Your task to perform on an android device: When is my next appointment? Image 0: 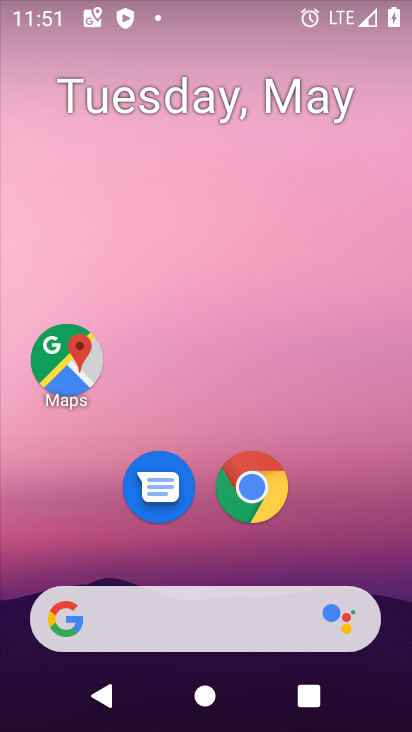
Step 0: drag from (207, 515) to (220, 133)
Your task to perform on an android device: When is my next appointment? Image 1: 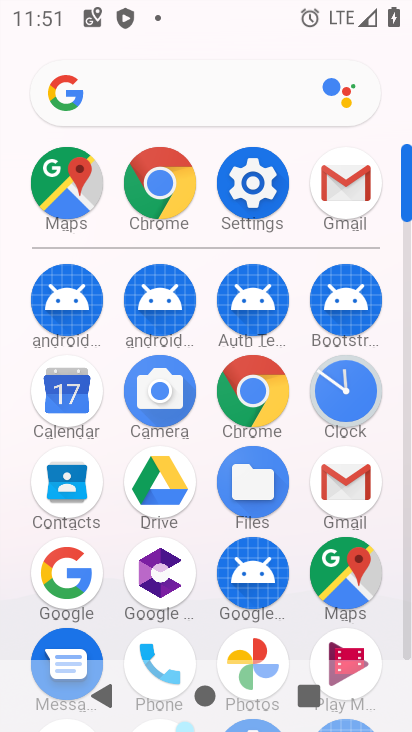
Step 1: drag from (209, 616) to (233, 296)
Your task to perform on an android device: When is my next appointment? Image 2: 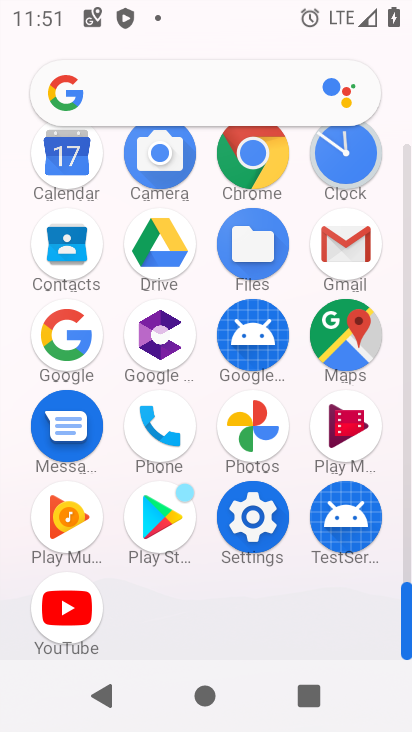
Step 2: click (180, 114)
Your task to perform on an android device: When is my next appointment? Image 3: 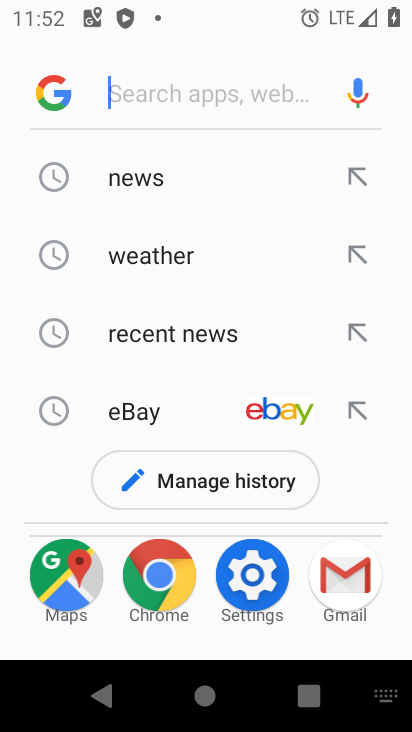
Step 3: press back button
Your task to perform on an android device: When is my next appointment? Image 4: 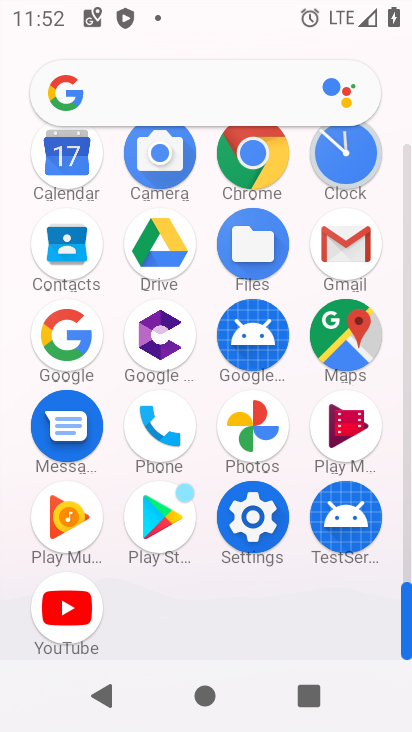
Step 4: click (64, 158)
Your task to perform on an android device: When is my next appointment? Image 5: 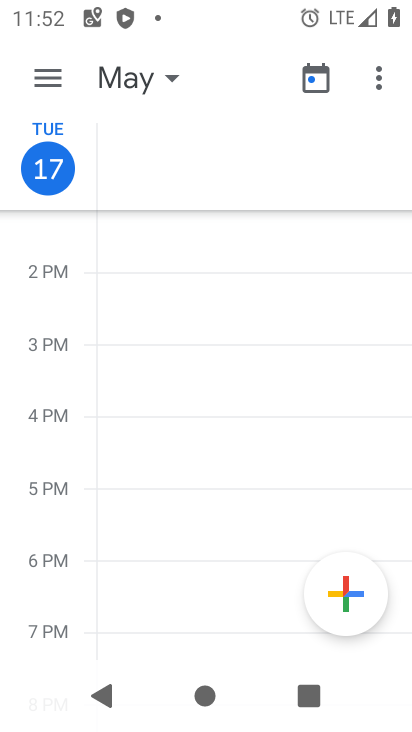
Step 5: click (128, 98)
Your task to perform on an android device: When is my next appointment? Image 6: 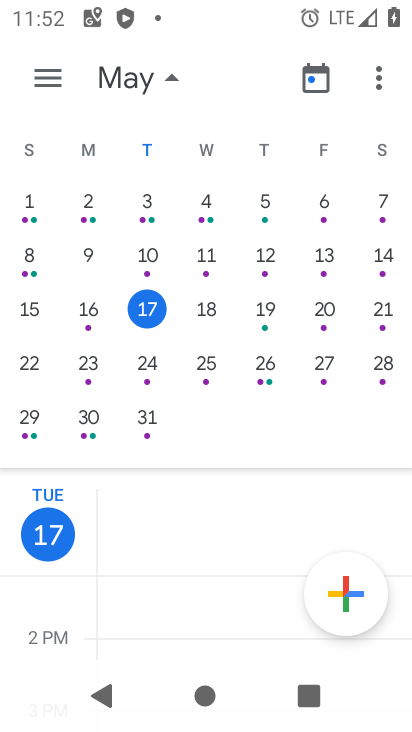
Step 6: click (146, 303)
Your task to perform on an android device: When is my next appointment? Image 7: 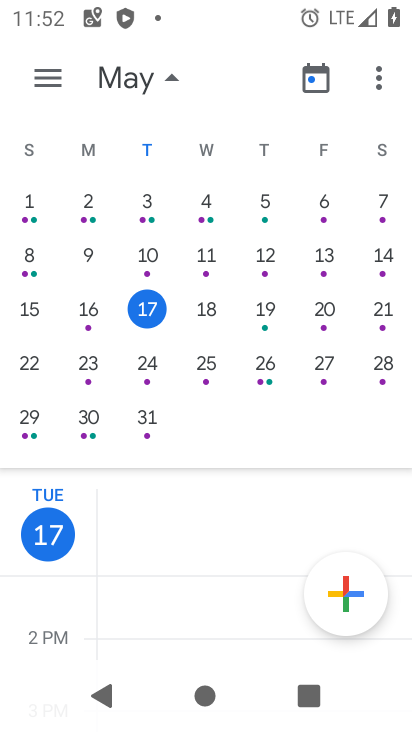
Step 7: drag from (217, 518) to (310, 74)
Your task to perform on an android device: When is my next appointment? Image 8: 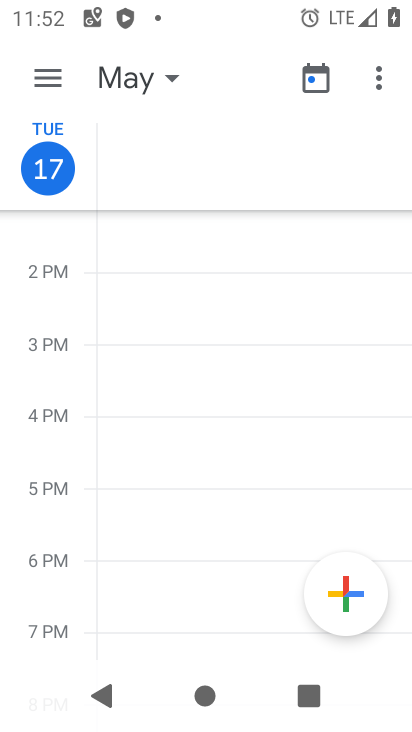
Step 8: drag from (283, 472) to (361, 92)
Your task to perform on an android device: When is my next appointment? Image 9: 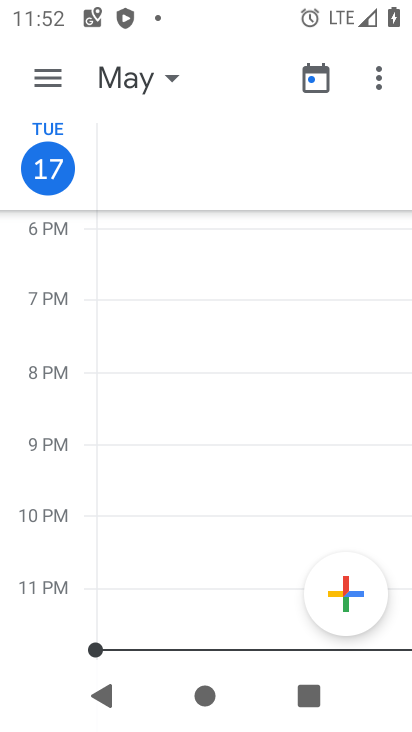
Step 9: drag from (233, 445) to (338, 120)
Your task to perform on an android device: When is my next appointment? Image 10: 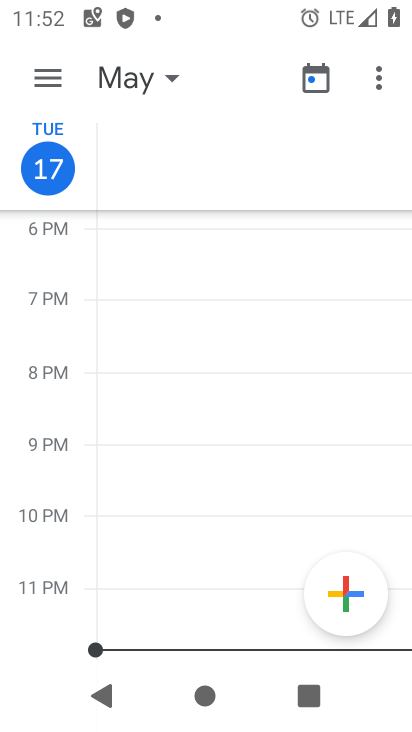
Step 10: drag from (302, 551) to (296, 325)
Your task to perform on an android device: When is my next appointment? Image 11: 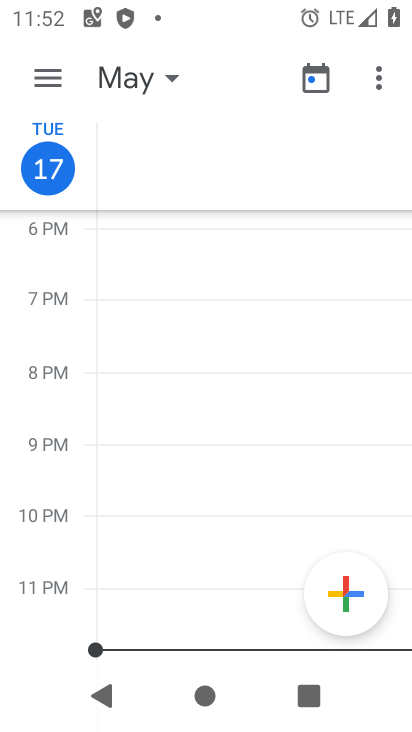
Step 11: drag from (214, 495) to (266, 307)
Your task to perform on an android device: When is my next appointment? Image 12: 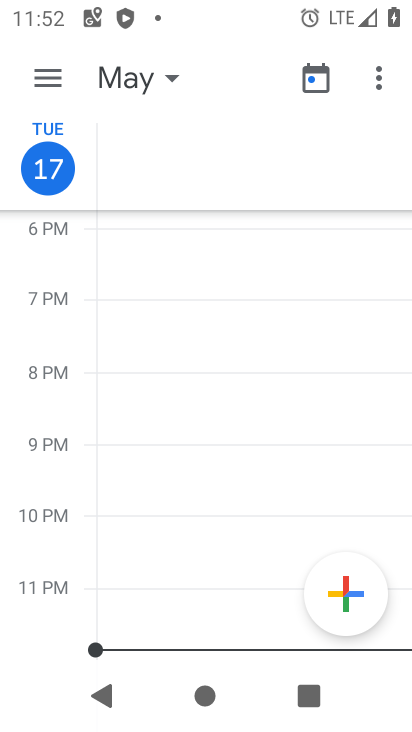
Step 12: click (134, 95)
Your task to perform on an android device: When is my next appointment? Image 13: 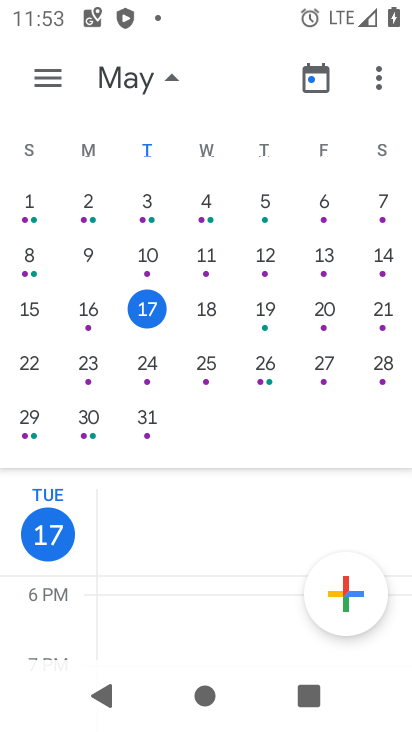
Step 13: click (252, 313)
Your task to perform on an android device: When is my next appointment? Image 14: 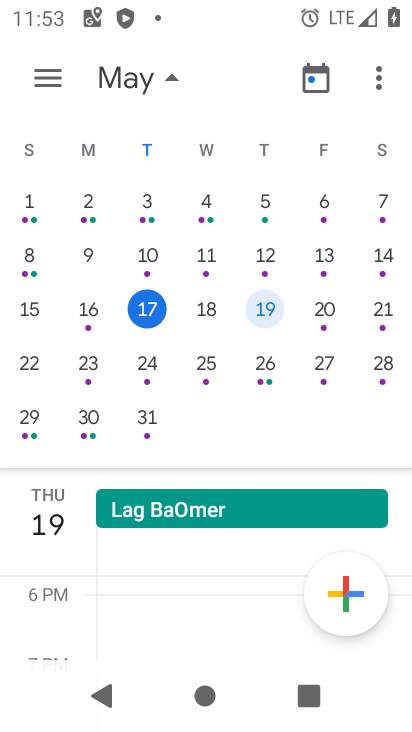
Step 14: task complete